Your task to perform on an android device: Turn off the flashlight Image 0: 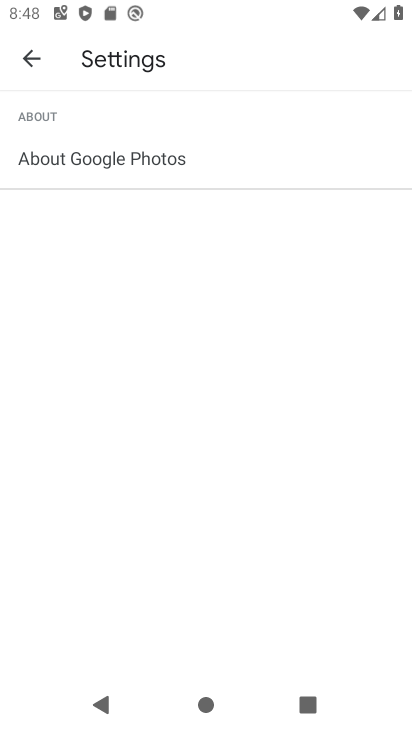
Step 0: press home button
Your task to perform on an android device: Turn off the flashlight Image 1: 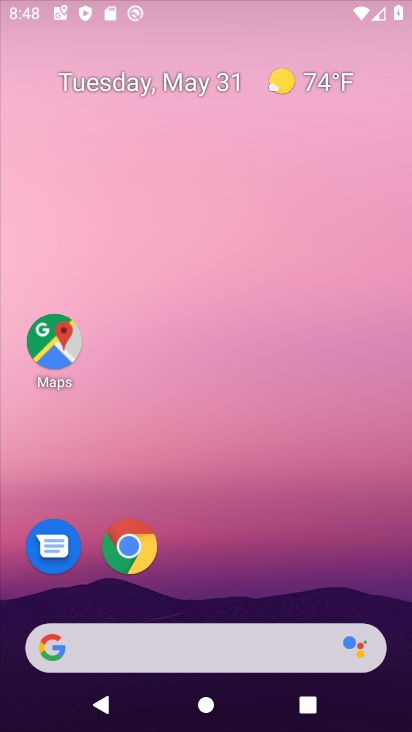
Step 1: drag from (237, 579) to (329, 75)
Your task to perform on an android device: Turn off the flashlight Image 2: 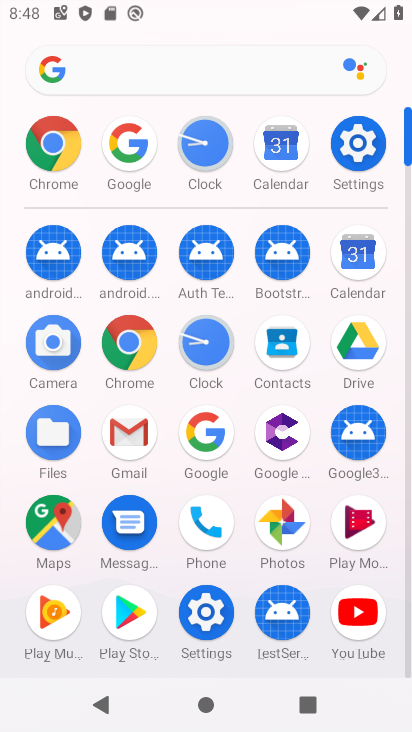
Step 2: click (352, 145)
Your task to perform on an android device: Turn off the flashlight Image 3: 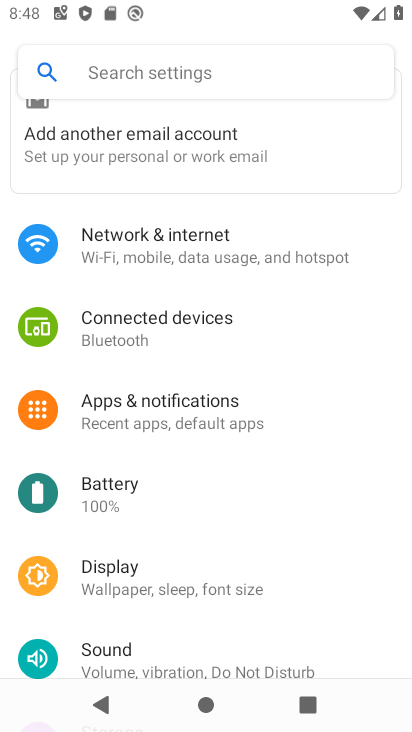
Step 3: click (162, 72)
Your task to perform on an android device: Turn off the flashlight Image 4: 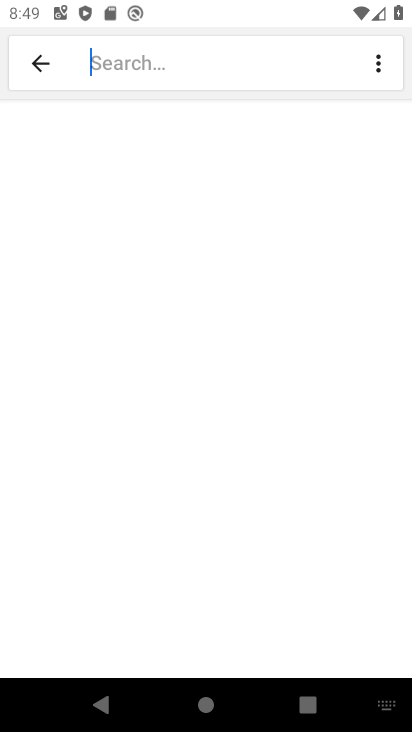
Step 4: type "flash"
Your task to perform on an android device: Turn off the flashlight Image 5: 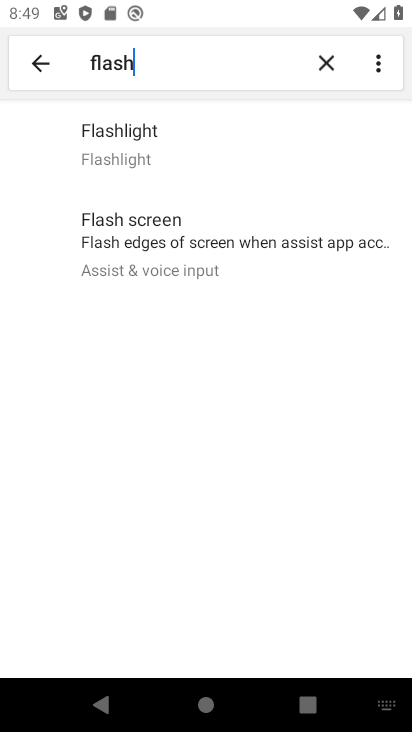
Step 5: task complete